Your task to perform on an android device: open app "Mercado Libre" (install if not already installed) and enter user name: "tolerating@yahoo.com" and password: "Kepler" Image 0: 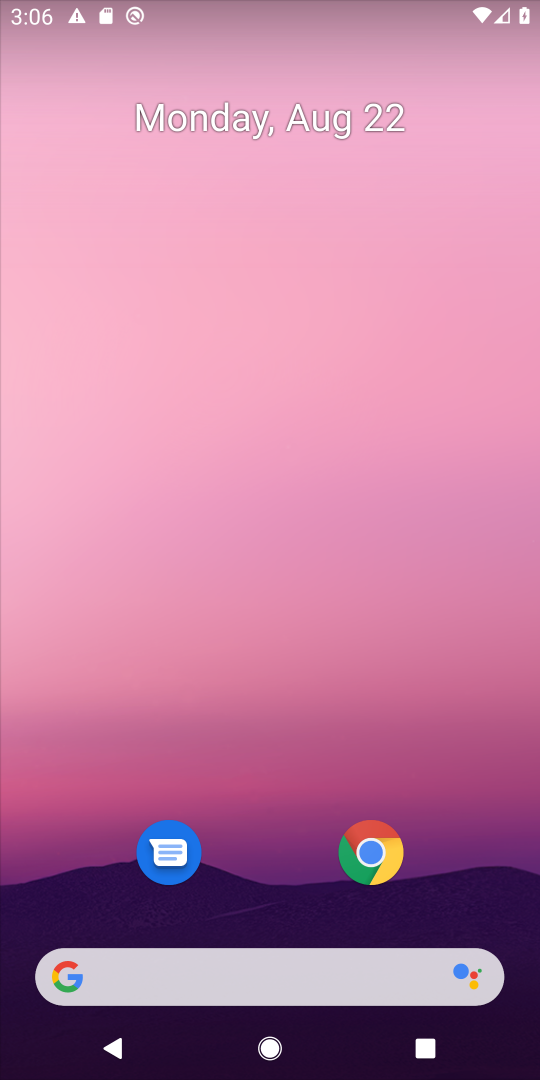
Step 0: drag from (276, 914) to (275, 81)
Your task to perform on an android device: open app "Mercado Libre" (install if not already installed) and enter user name: "tolerating@yahoo.com" and password: "Kepler" Image 1: 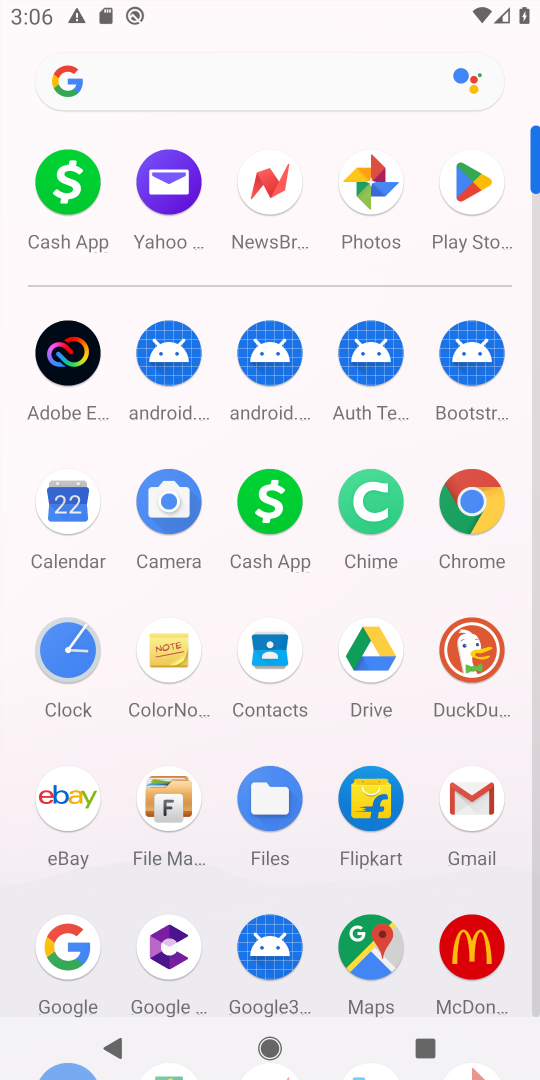
Step 1: click (481, 177)
Your task to perform on an android device: open app "Mercado Libre" (install if not already installed) and enter user name: "tolerating@yahoo.com" and password: "Kepler" Image 2: 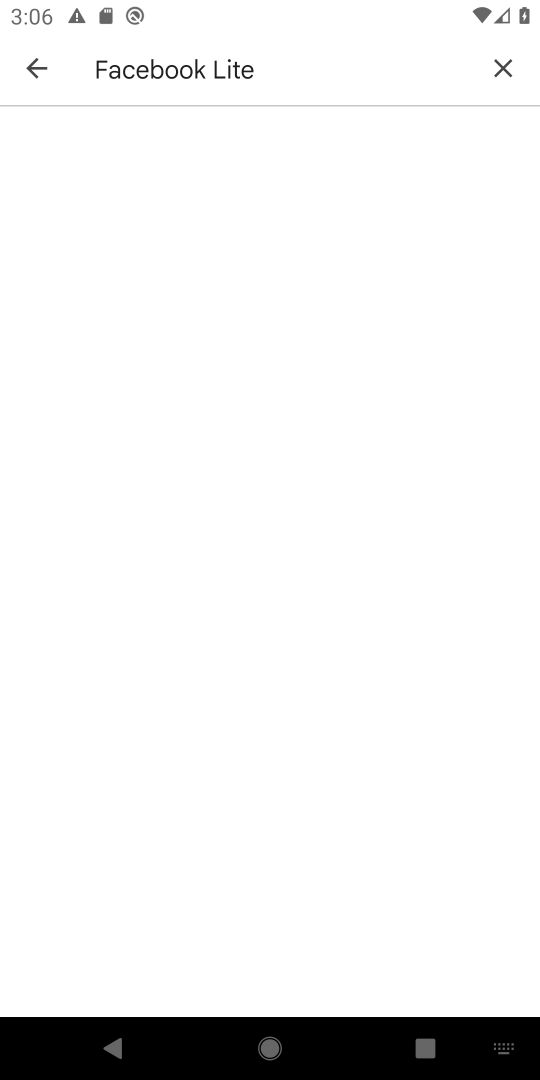
Step 2: click (501, 60)
Your task to perform on an android device: open app "Mercado Libre" (install if not already installed) and enter user name: "tolerating@yahoo.com" and password: "Kepler" Image 3: 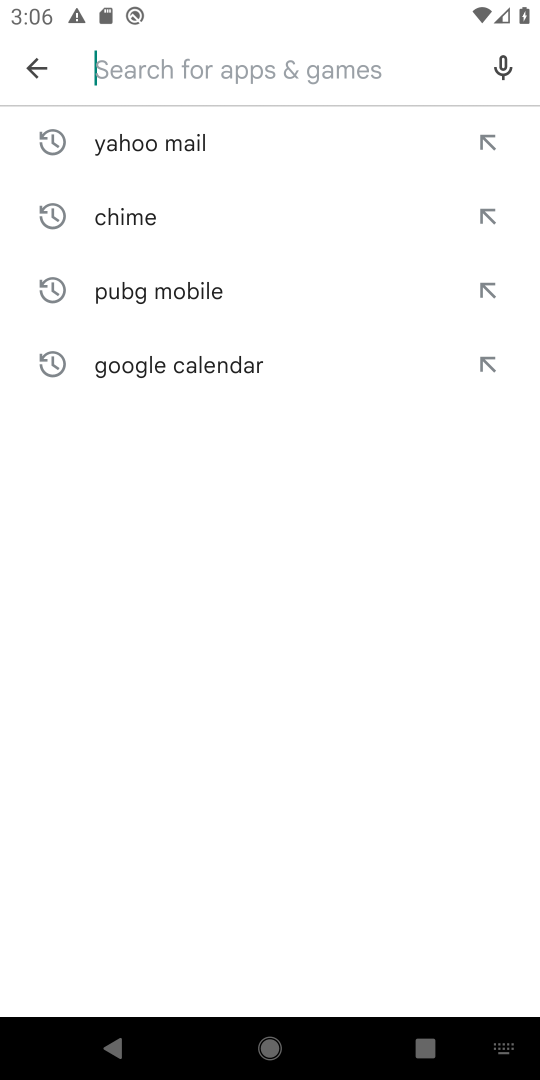
Step 3: type "Mercado Libre"
Your task to perform on an android device: open app "Mercado Libre" (install if not already installed) and enter user name: "tolerating@yahoo.com" and password: "Kepler" Image 4: 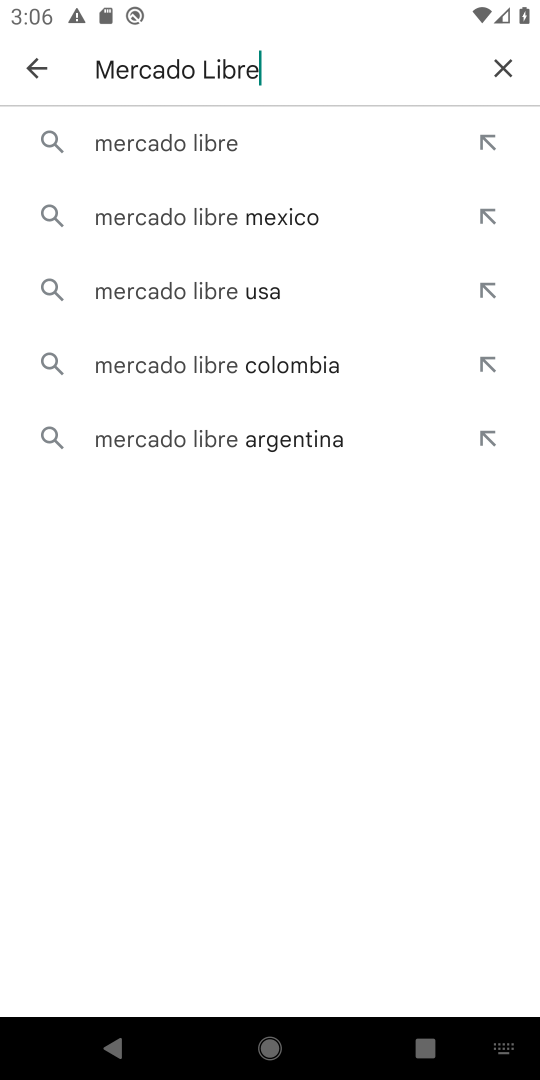
Step 4: click (128, 146)
Your task to perform on an android device: open app "Mercado Libre" (install if not already installed) and enter user name: "tolerating@yahoo.com" and password: "Kepler" Image 5: 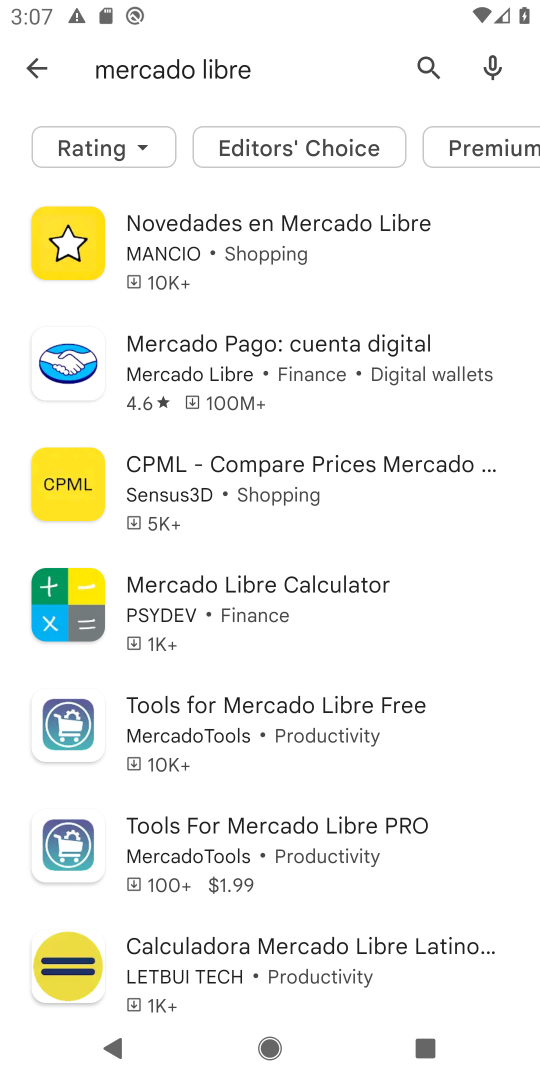
Step 5: task complete